Your task to perform on an android device: change the clock style Image 0: 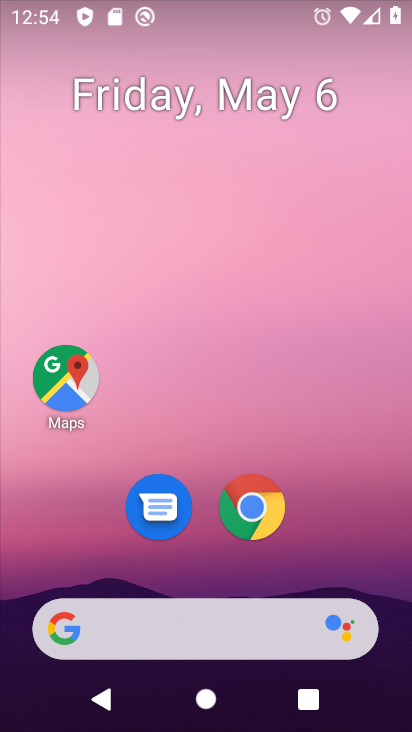
Step 0: drag from (138, 589) to (288, 51)
Your task to perform on an android device: change the clock style Image 1: 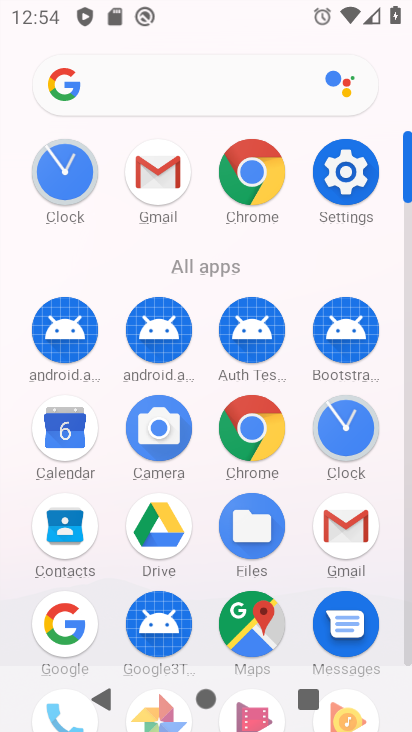
Step 1: click (368, 425)
Your task to perform on an android device: change the clock style Image 2: 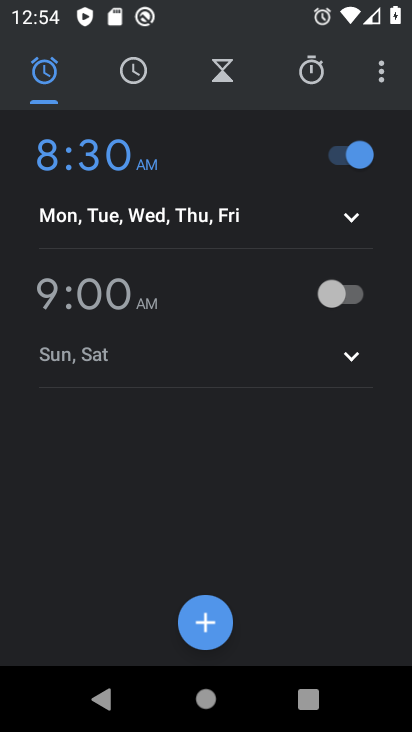
Step 2: click (382, 84)
Your task to perform on an android device: change the clock style Image 3: 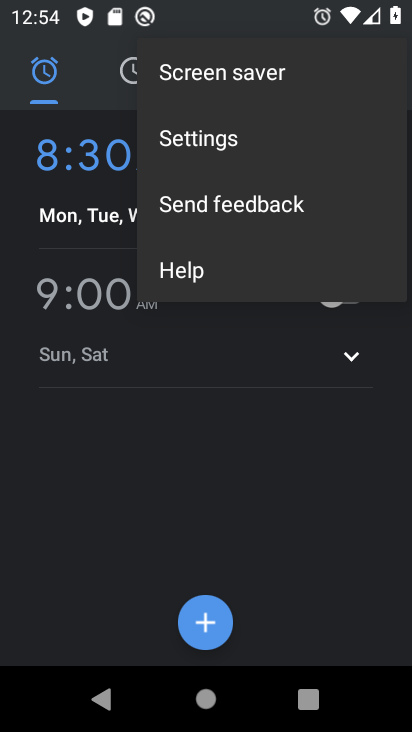
Step 3: click (280, 129)
Your task to perform on an android device: change the clock style Image 4: 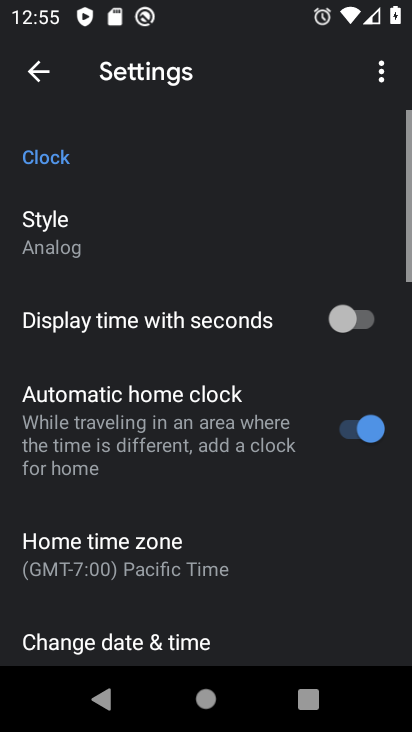
Step 4: click (165, 243)
Your task to perform on an android device: change the clock style Image 5: 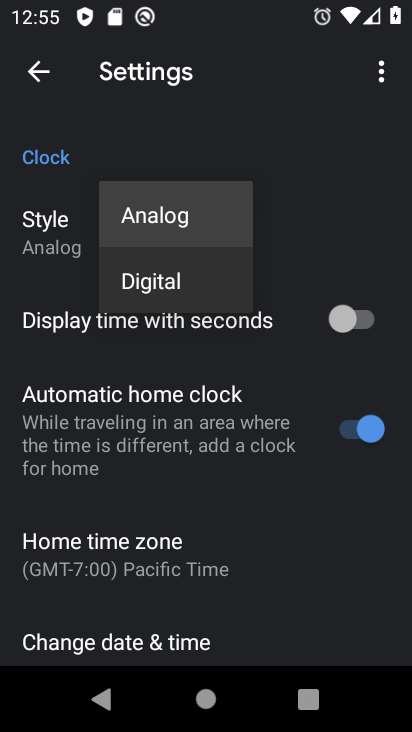
Step 5: click (193, 285)
Your task to perform on an android device: change the clock style Image 6: 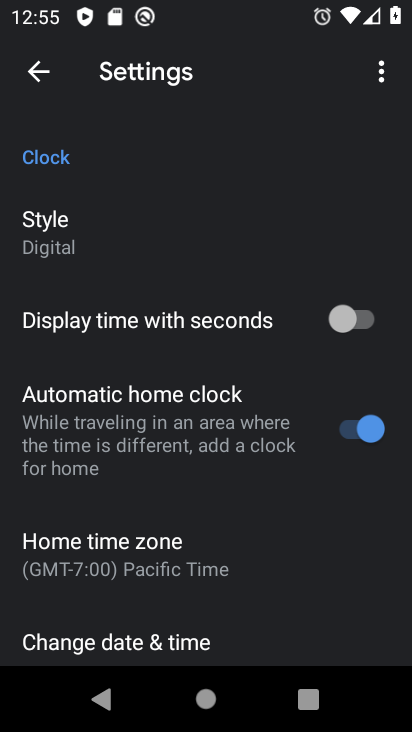
Step 6: task complete